Your task to perform on an android device: turn off location history Image 0: 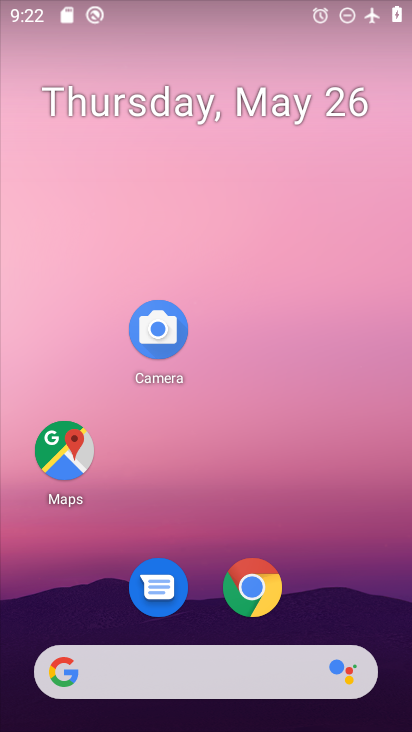
Step 0: drag from (202, 601) to (200, 252)
Your task to perform on an android device: turn off location history Image 1: 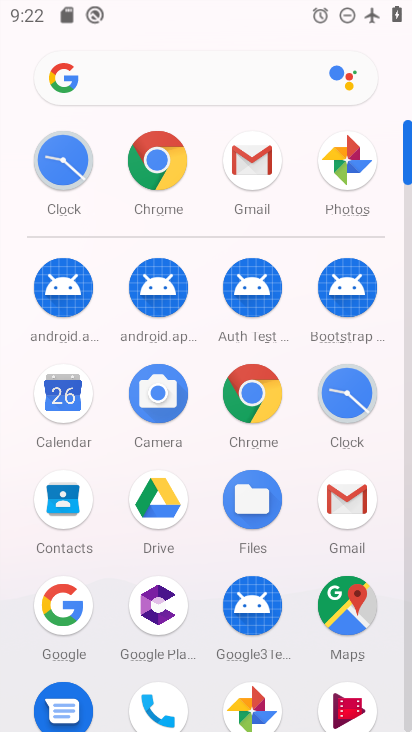
Step 1: drag from (186, 629) to (192, 287)
Your task to perform on an android device: turn off location history Image 2: 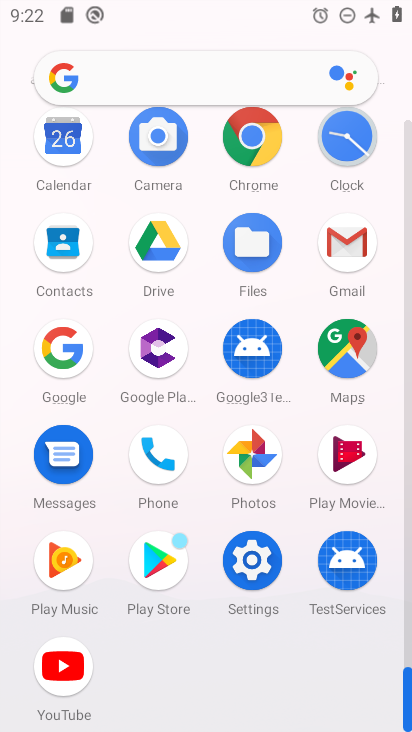
Step 2: click (240, 522)
Your task to perform on an android device: turn off location history Image 3: 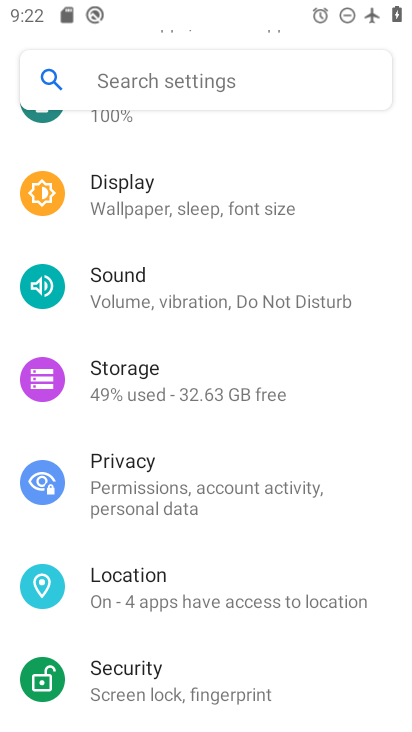
Step 3: click (239, 597)
Your task to perform on an android device: turn off location history Image 4: 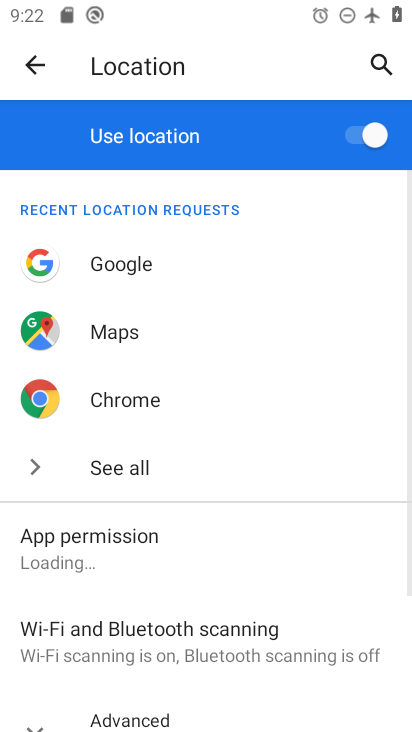
Step 4: drag from (248, 654) to (254, 335)
Your task to perform on an android device: turn off location history Image 5: 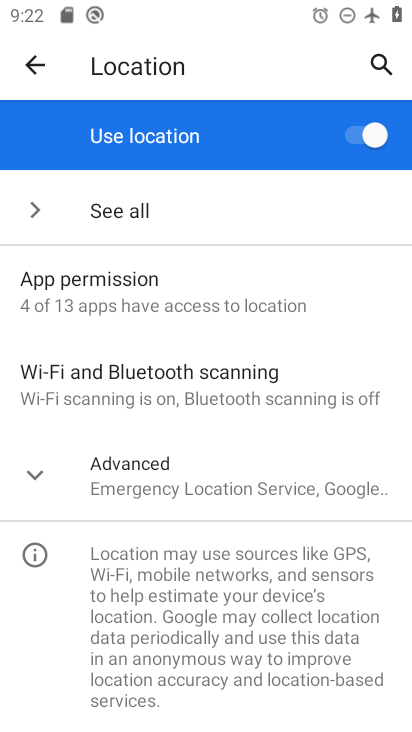
Step 5: click (249, 483)
Your task to perform on an android device: turn off location history Image 6: 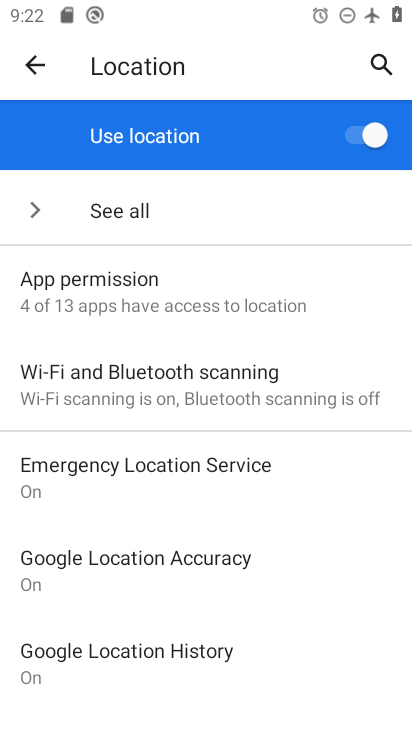
Step 6: click (224, 651)
Your task to perform on an android device: turn off location history Image 7: 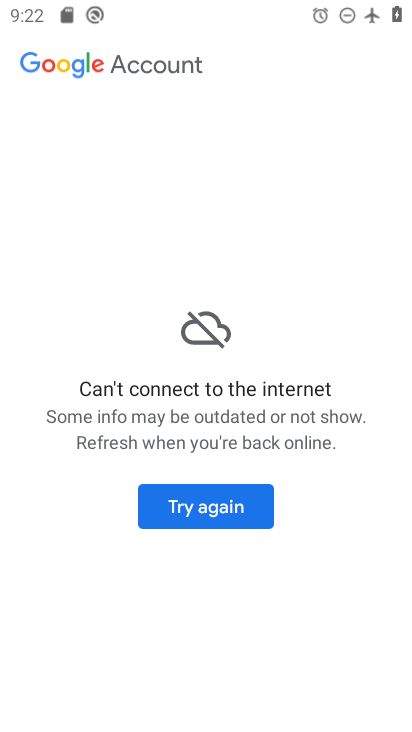
Step 7: task complete